Your task to perform on an android device: Search for a new lipstick on Sephora Image 0: 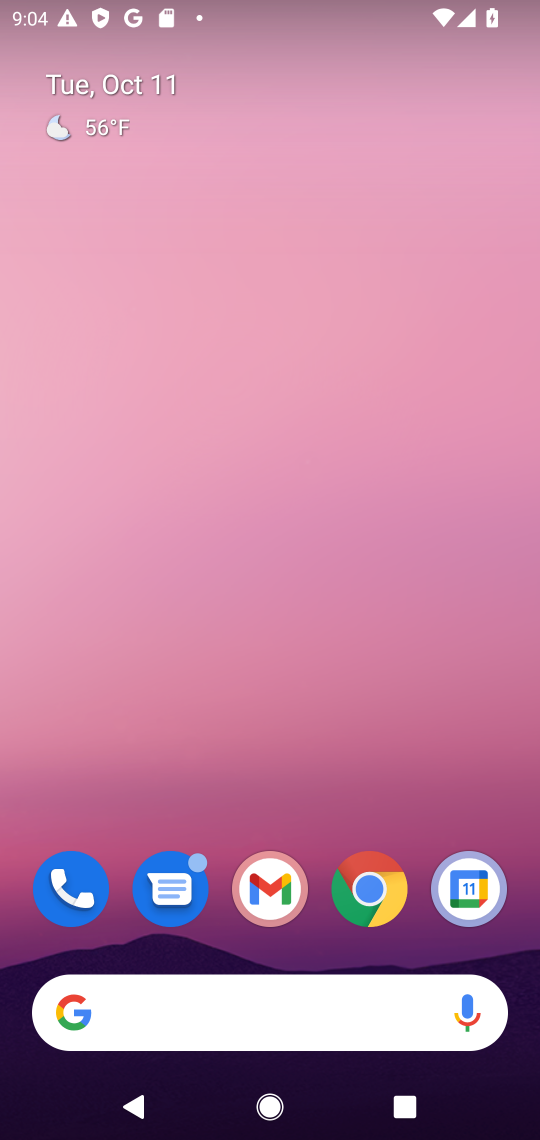
Step 0: click (274, 1024)
Your task to perform on an android device: Search for a new lipstick on Sephora Image 1: 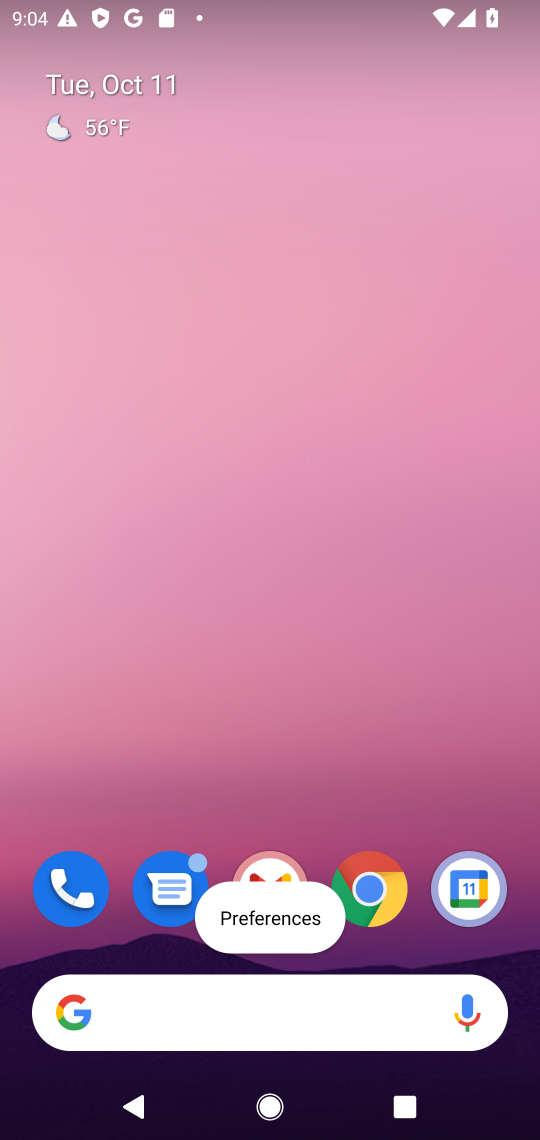
Step 1: click (181, 1041)
Your task to perform on an android device: Search for a new lipstick on Sephora Image 2: 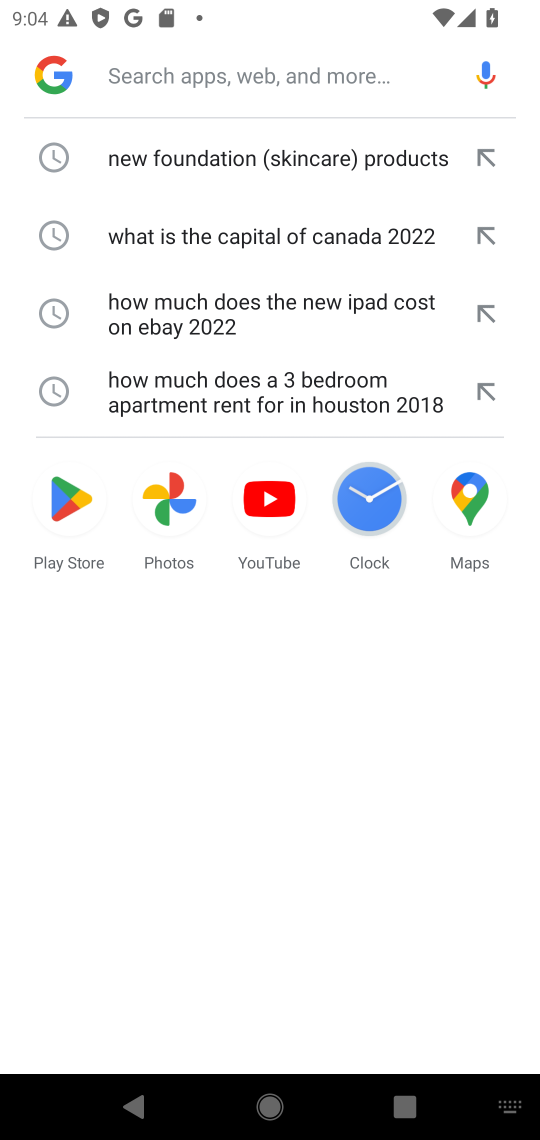
Step 2: click (179, 91)
Your task to perform on an android device: Search for a new lipstick on Sephora Image 3: 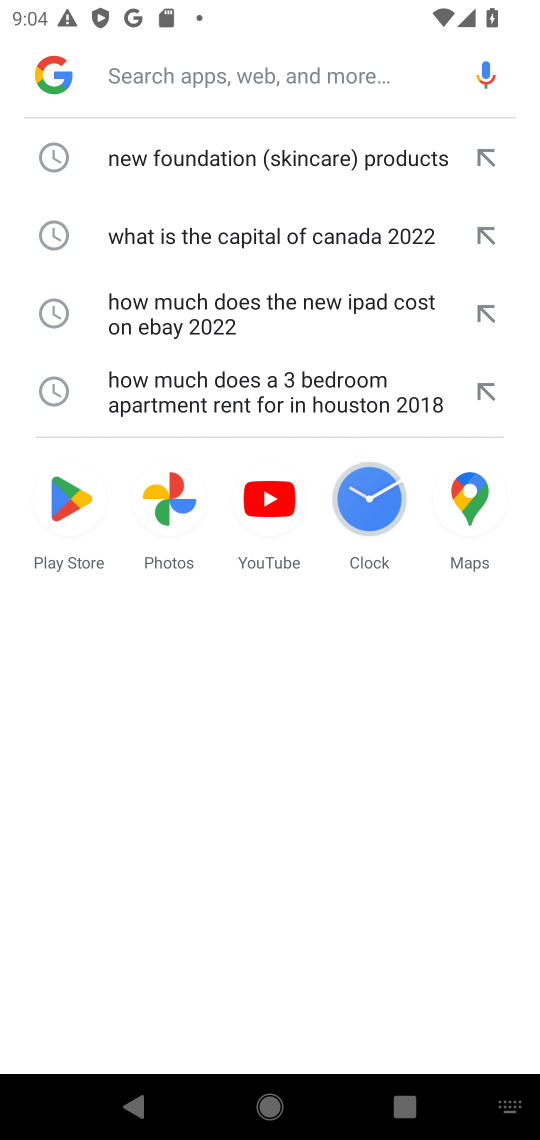
Step 3: type "new lipstick on Sephora"
Your task to perform on an android device: Search for a new lipstick on Sephora Image 4: 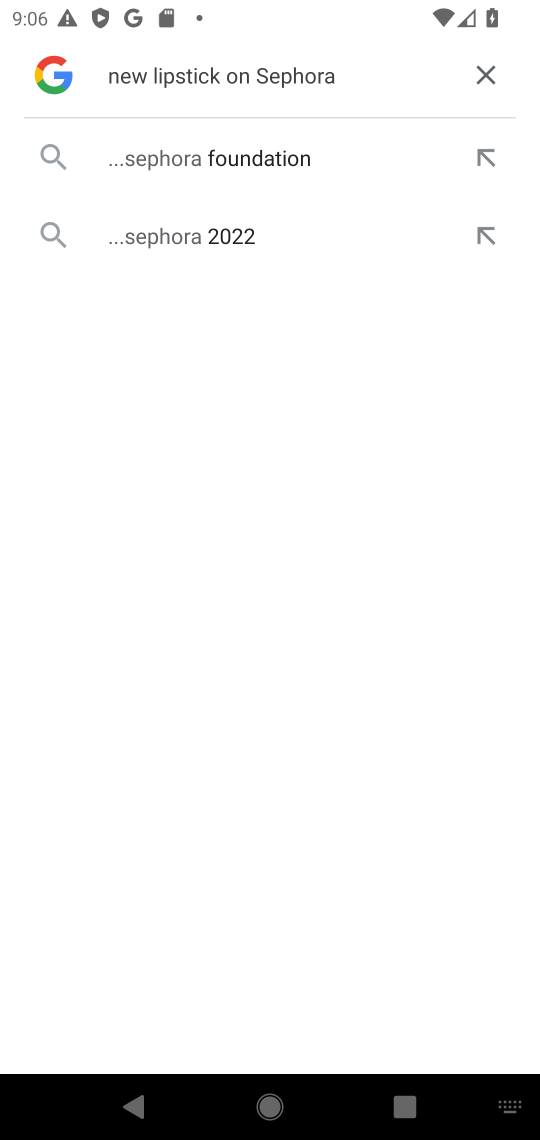
Step 4: click (277, 156)
Your task to perform on an android device: Search for a new lipstick on Sephora Image 5: 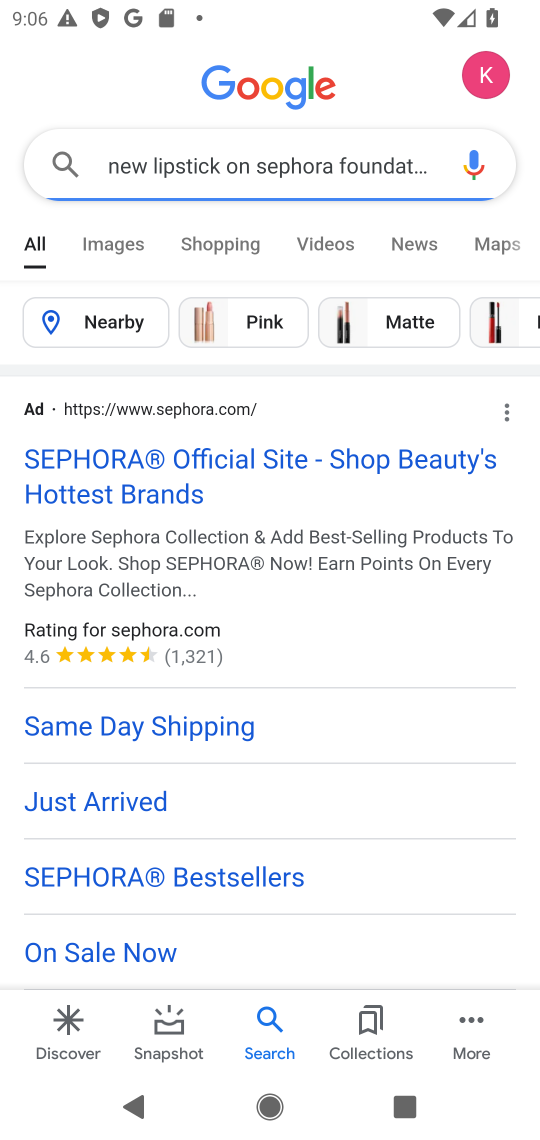
Step 5: task complete